Your task to perform on an android device: Show me the alarms in the clock app Image 0: 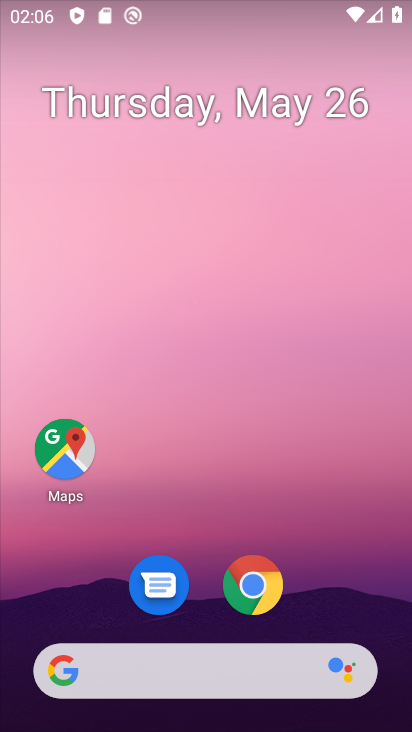
Step 0: drag from (227, 500) to (227, 49)
Your task to perform on an android device: Show me the alarms in the clock app Image 1: 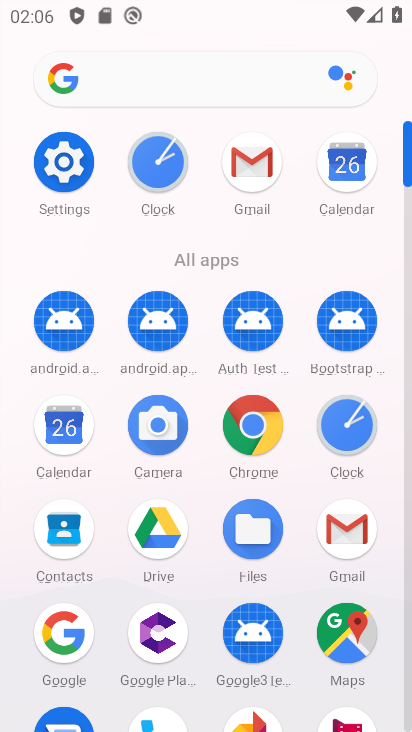
Step 1: click (170, 161)
Your task to perform on an android device: Show me the alarms in the clock app Image 2: 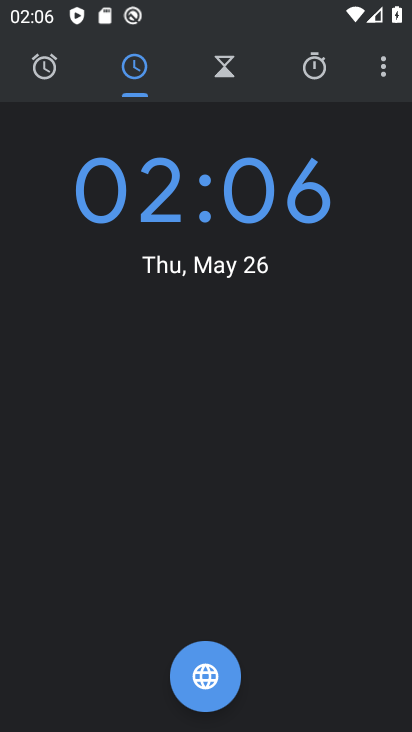
Step 2: click (47, 75)
Your task to perform on an android device: Show me the alarms in the clock app Image 3: 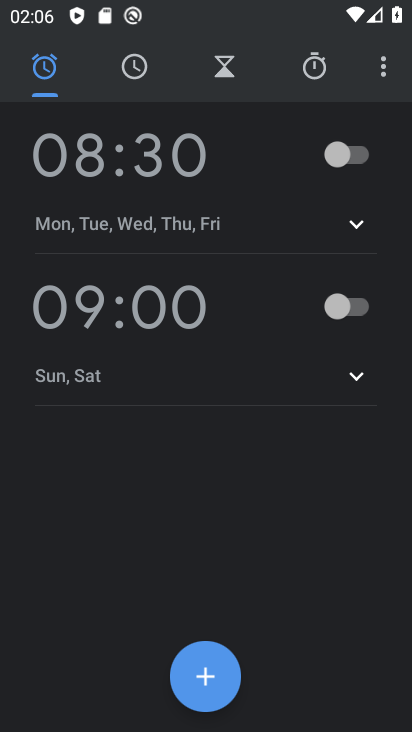
Step 3: task complete